Your task to perform on an android device: toggle airplane mode Image 0: 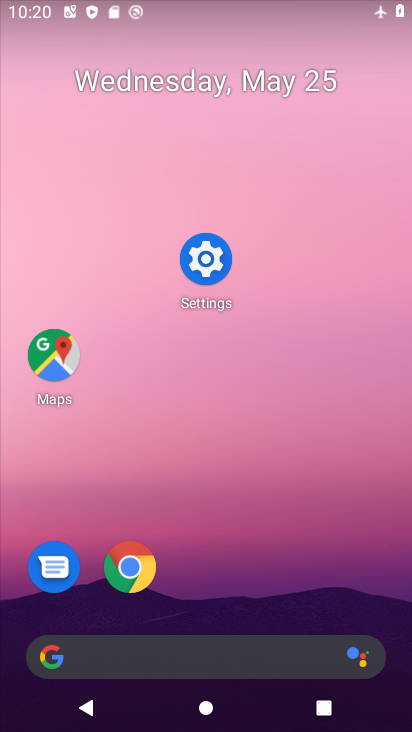
Step 0: drag from (304, 562) to (281, 237)
Your task to perform on an android device: toggle airplane mode Image 1: 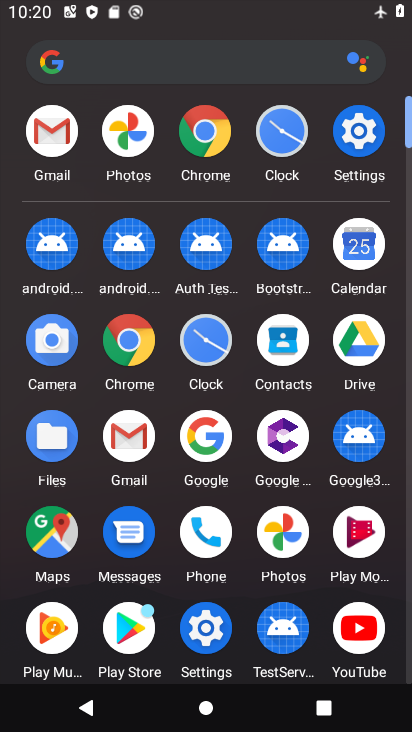
Step 1: click (388, 159)
Your task to perform on an android device: toggle airplane mode Image 2: 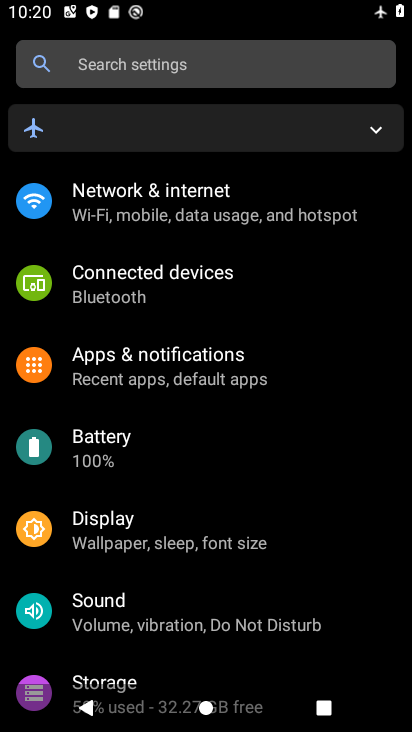
Step 2: click (284, 190)
Your task to perform on an android device: toggle airplane mode Image 3: 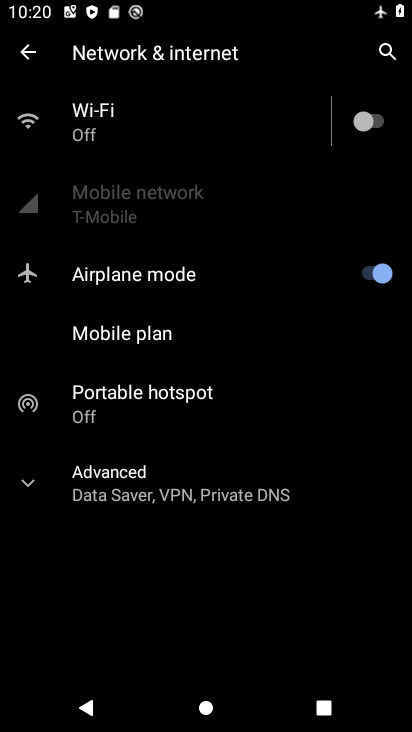
Step 3: click (173, 258)
Your task to perform on an android device: toggle airplane mode Image 4: 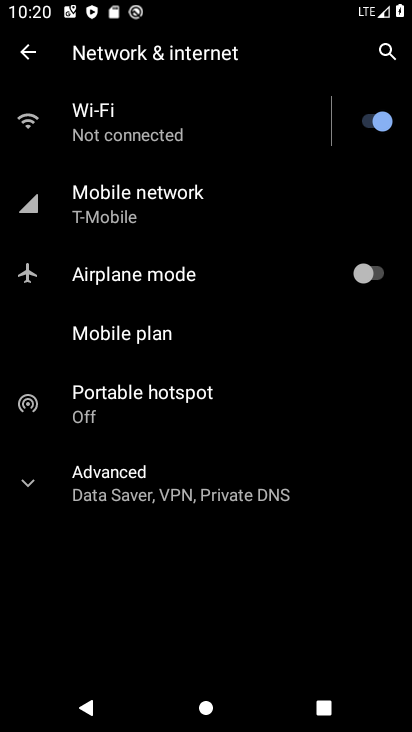
Step 4: task complete